Your task to perform on an android device: Go to eBay Image 0: 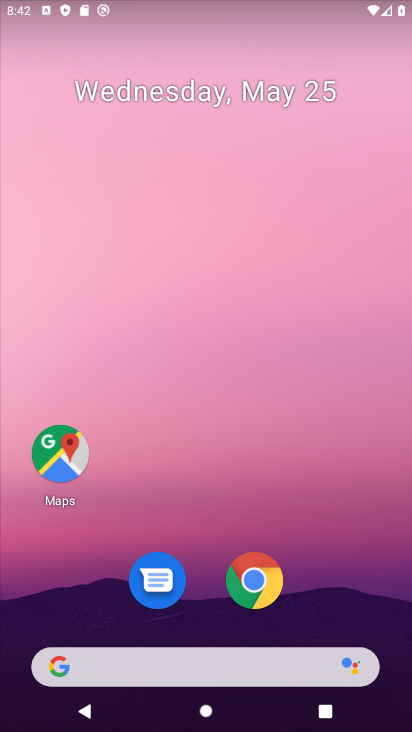
Step 0: click (259, 579)
Your task to perform on an android device: Go to eBay Image 1: 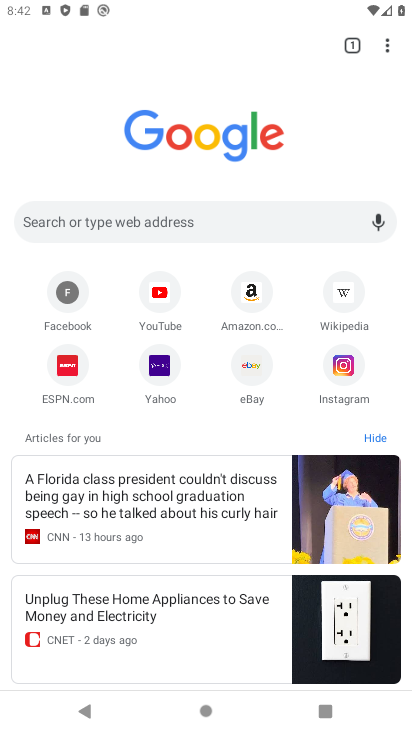
Step 1: click (255, 366)
Your task to perform on an android device: Go to eBay Image 2: 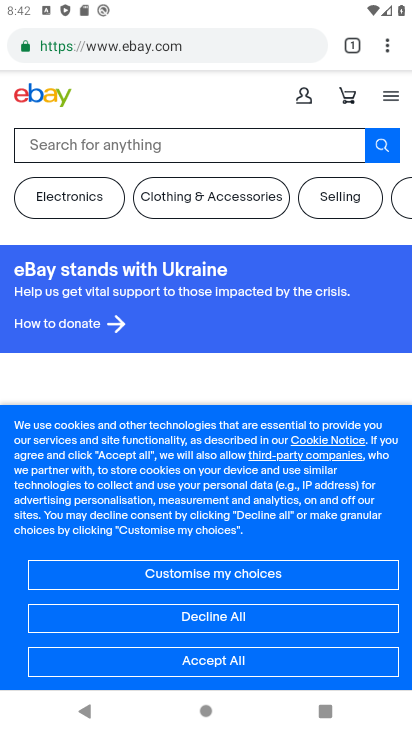
Step 2: task complete